Your task to perform on an android device: Open the phone app and click the voicemail tab. Image 0: 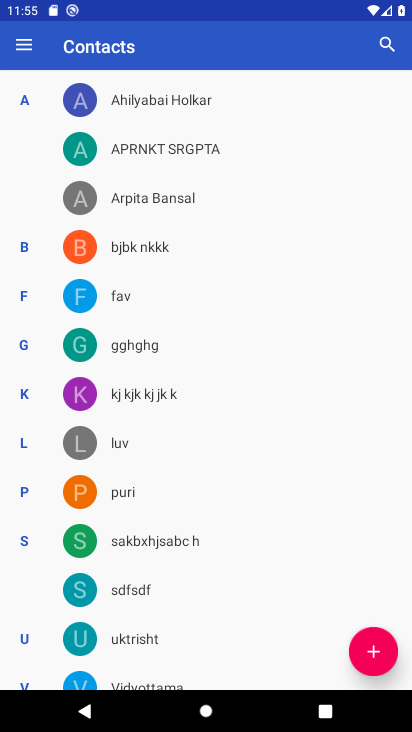
Step 0: press home button
Your task to perform on an android device: Open the phone app and click the voicemail tab. Image 1: 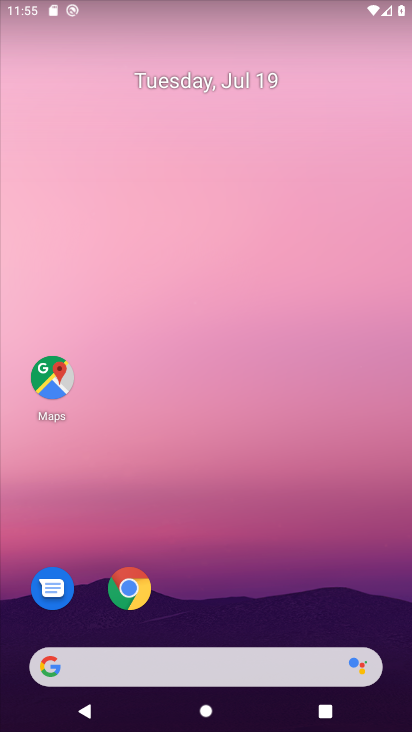
Step 1: drag from (221, 594) to (249, 31)
Your task to perform on an android device: Open the phone app and click the voicemail tab. Image 2: 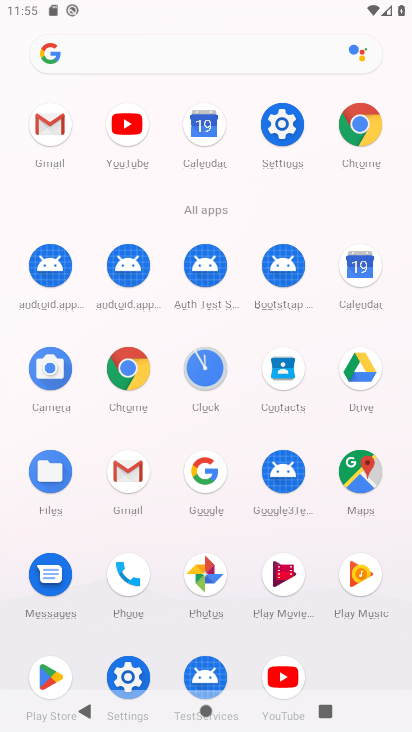
Step 2: click (138, 581)
Your task to perform on an android device: Open the phone app and click the voicemail tab. Image 3: 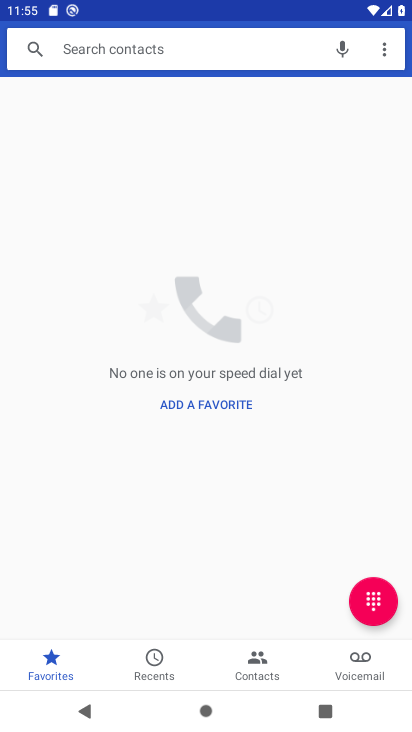
Step 3: click (364, 662)
Your task to perform on an android device: Open the phone app and click the voicemail tab. Image 4: 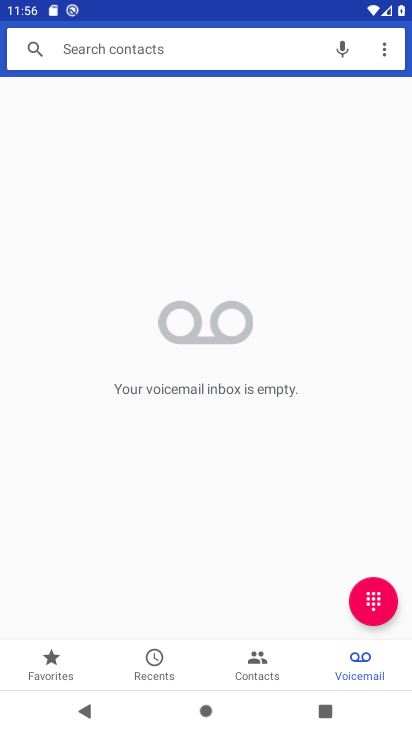
Step 4: task complete